Your task to perform on an android device: open a new tab in the chrome app Image 0: 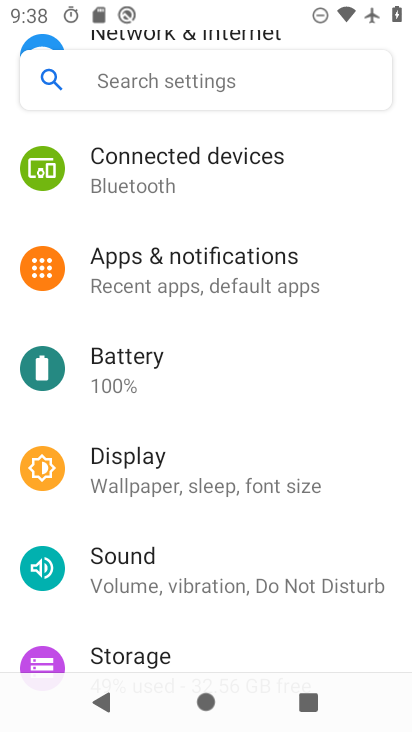
Step 0: press home button
Your task to perform on an android device: open a new tab in the chrome app Image 1: 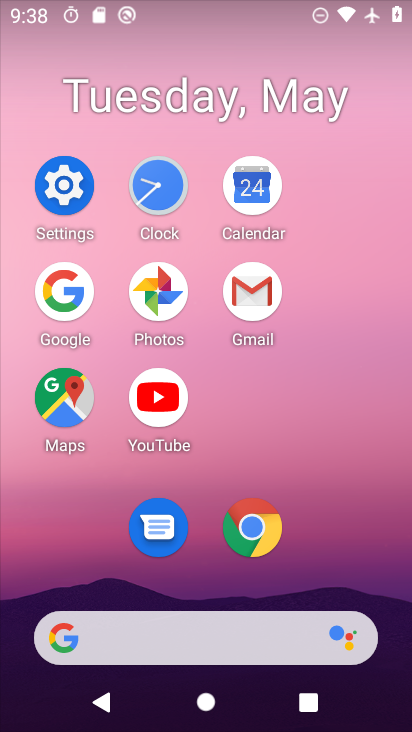
Step 1: click (250, 523)
Your task to perform on an android device: open a new tab in the chrome app Image 2: 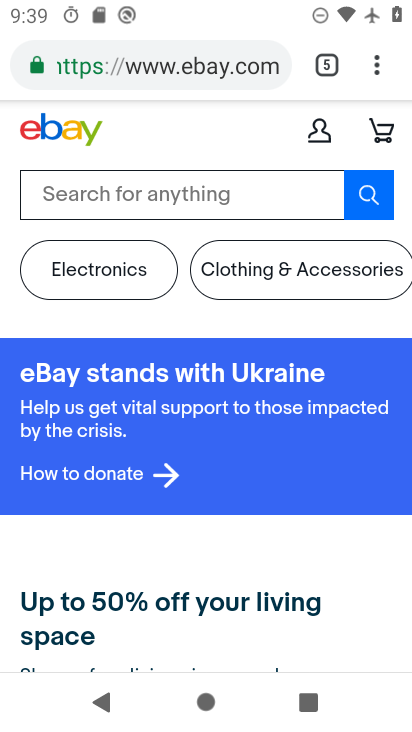
Step 2: click (332, 68)
Your task to perform on an android device: open a new tab in the chrome app Image 3: 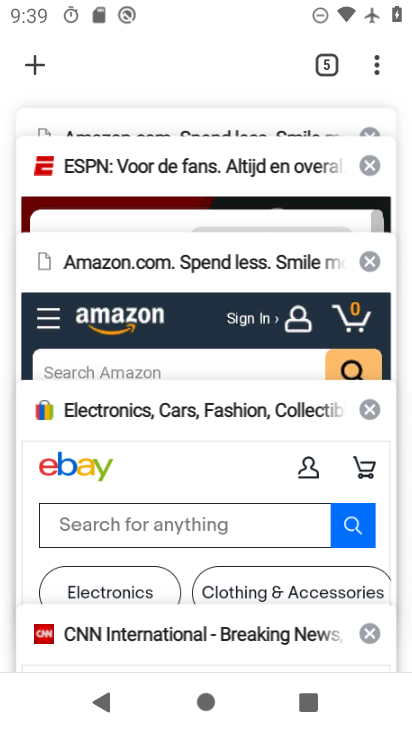
Step 3: click (46, 71)
Your task to perform on an android device: open a new tab in the chrome app Image 4: 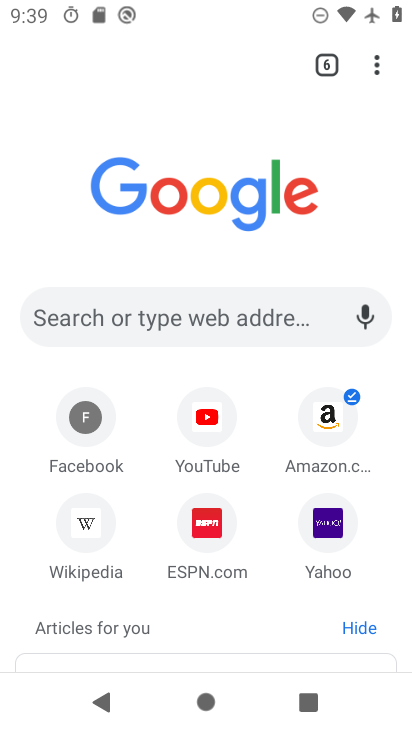
Step 4: click (326, 68)
Your task to perform on an android device: open a new tab in the chrome app Image 5: 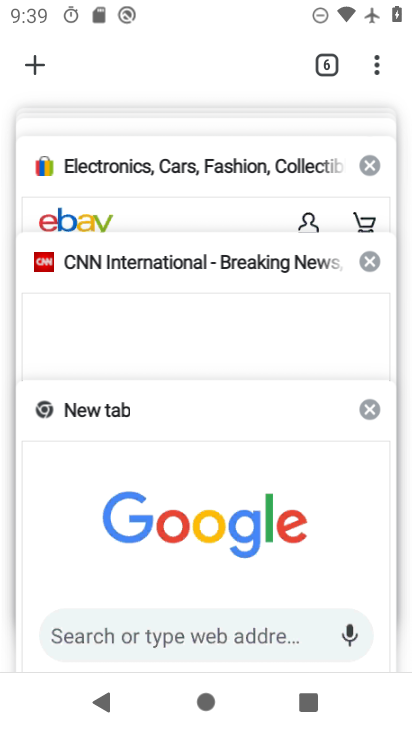
Step 5: click (29, 74)
Your task to perform on an android device: open a new tab in the chrome app Image 6: 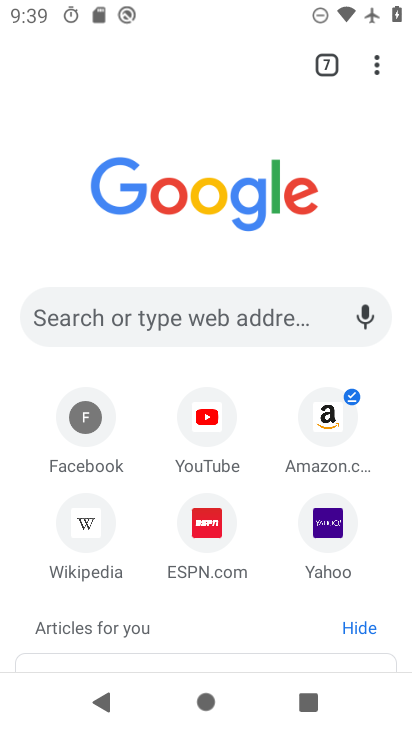
Step 6: task complete